Your task to perform on an android device: toggle translation in the chrome app Image 0: 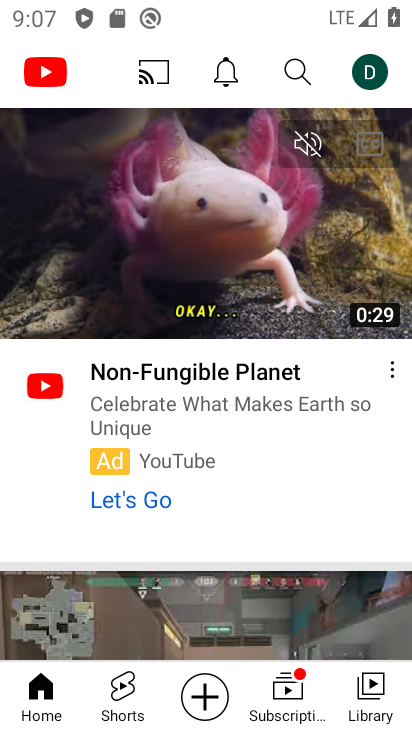
Step 0: press home button
Your task to perform on an android device: toggle translation in the chrome app Image 1: 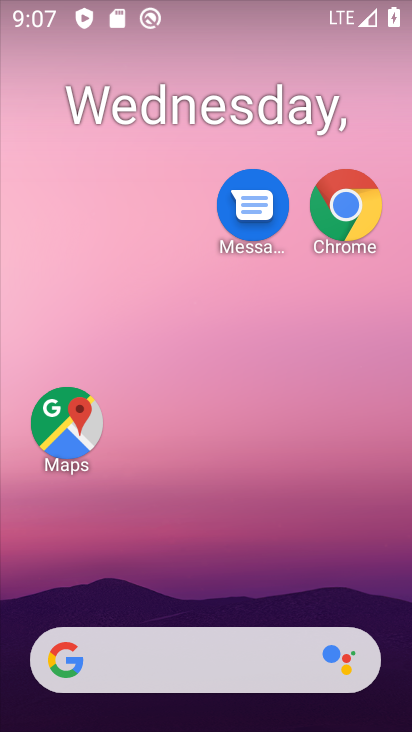
Step 1: drag from (207, 514) to (229, 283)
Your task to perform on an android device: toggle translation in the chrome app Image 2: 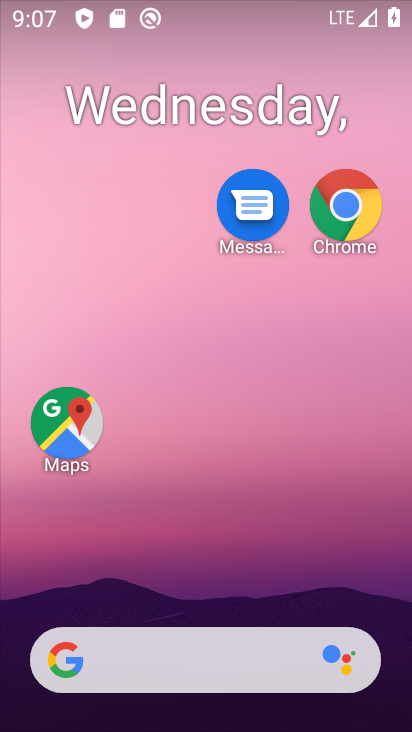
Step 2: drag from (216, 493) to (286, 95)
Your task to perform on an android device: toggle translation in the chrome app Image 3: 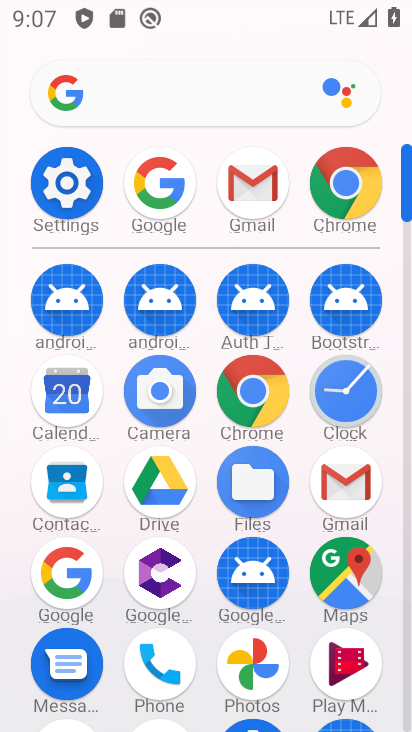
Step 3: click (249, 392)
Your task to perform on an android device: toggle translation in the chrome app Image 4: 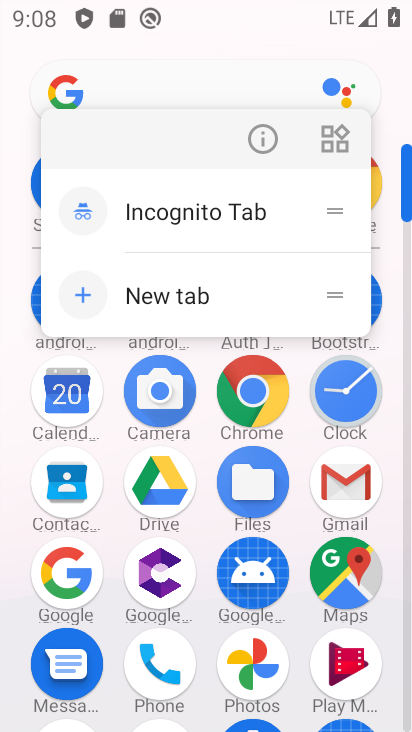
Step 4: click (256, 136)
Your task to perform on an android device: toggle translation in the chrome app Image 5: 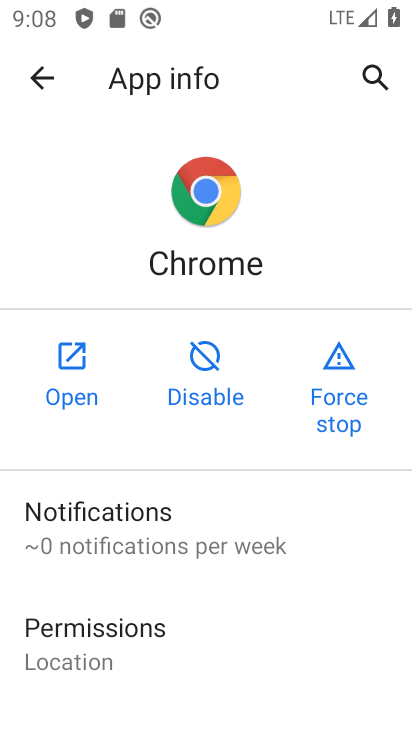
Step 5: click (72, 370)
Your task to perform on an android device: toggle translation in the chrome app Image 6: 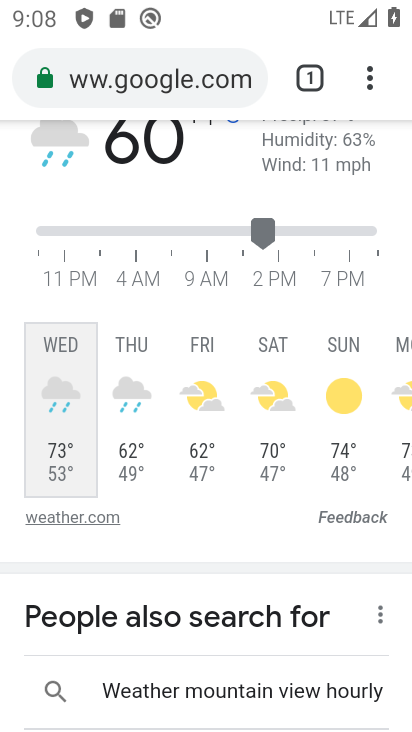
Step 6: drag from (261, 278) to (325, 672)
Your task to perform on an android device: toggle translation in the chrome app Image 7: 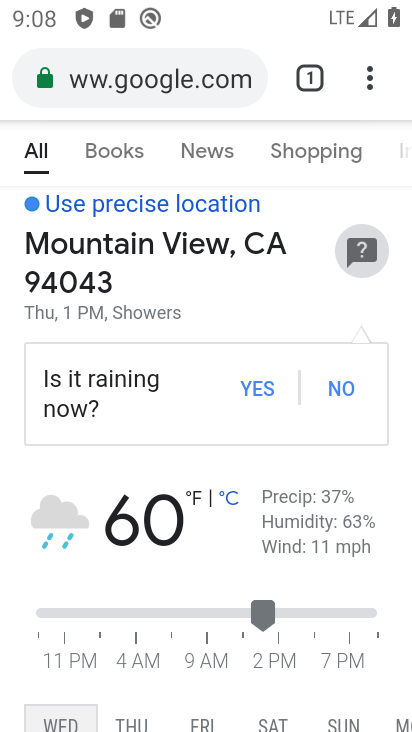
Step 7: drag from (362, 76) to (176, 611)
Your task to perform on an android device: toggle translation in the chrome app Image 8: 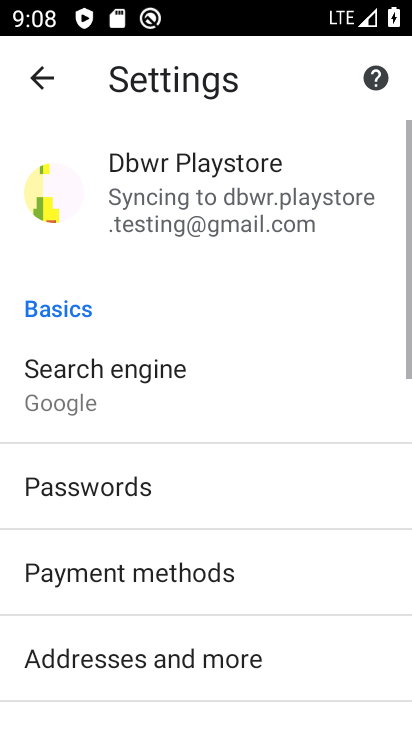
Step 8: drag from (175, 693) to (254, 276)
Your task to perform on an android device: toggle translation in the chrome app Image 9: 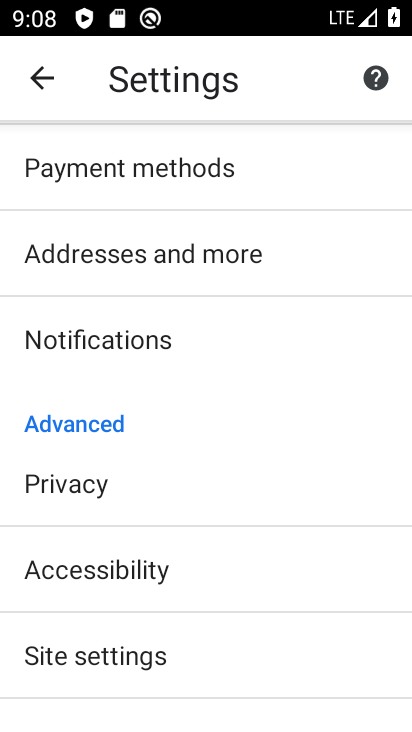
Step 9: drag from (187, 517) to (287, 145)
Your task to perform on an android device: toggle translation in the chrome app Image 10: 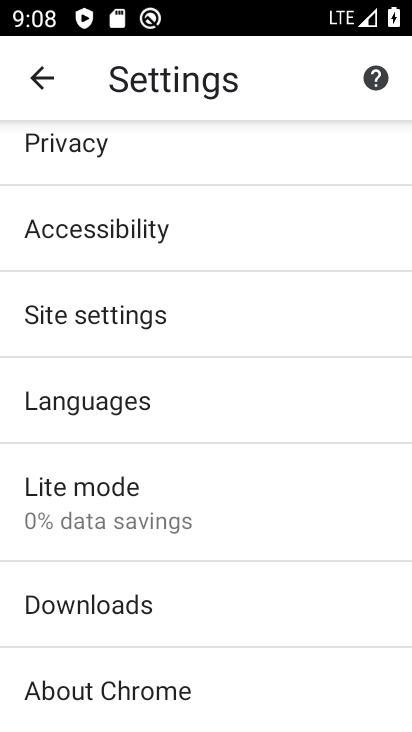
Step 10: click (99, 391)
Your task to perform on an android device: toggle translation in the chrome app Image 11: 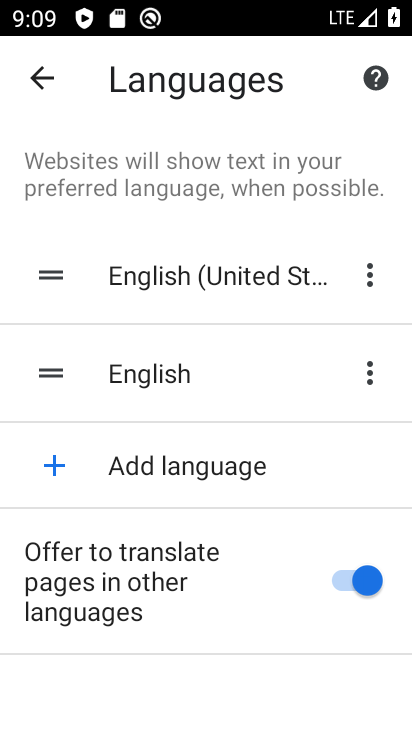
Step 11: click (346, 594)
Your task to perform on an android device: toggle translation in the chrome app Image 12: 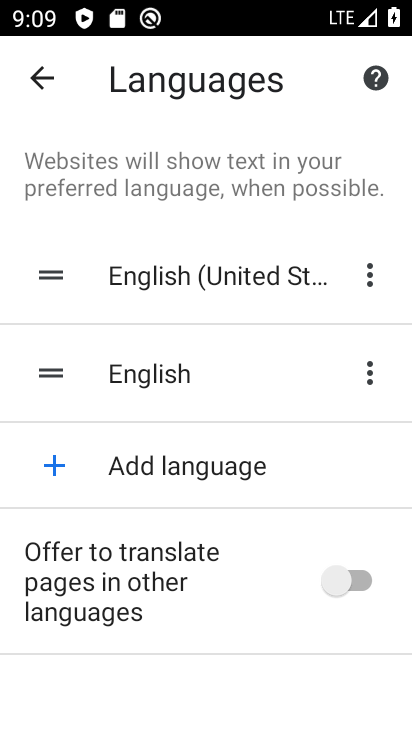
Step 12: task complete